Your task to perform on an android device: Add razer blade to the cart on target, then select checkout. Image 0: 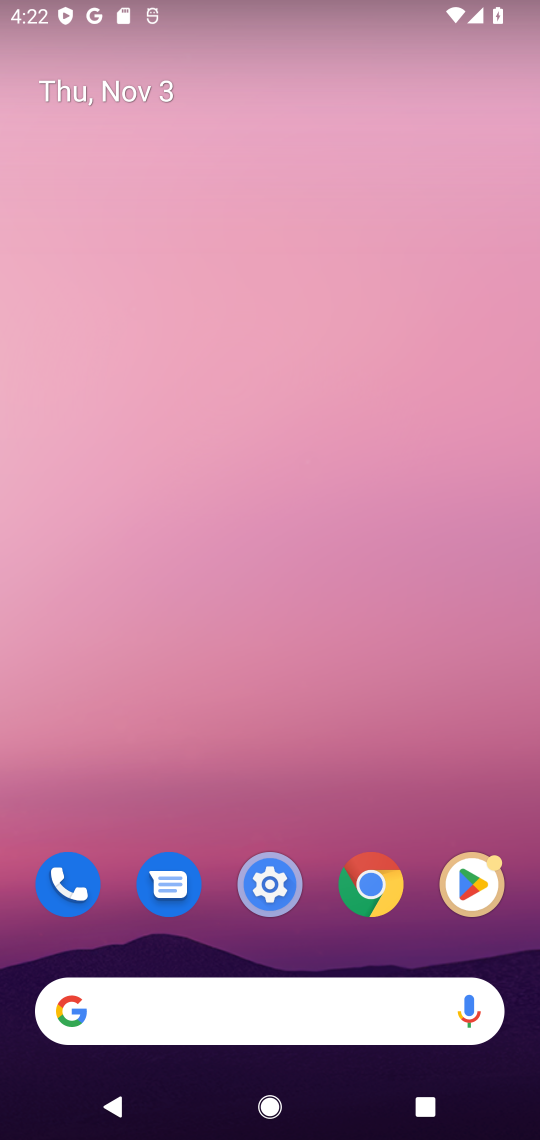
Step 0: press home button
Your task to perform on an android device: Add razer blade to the cart on target, then select checkout. Image 1: 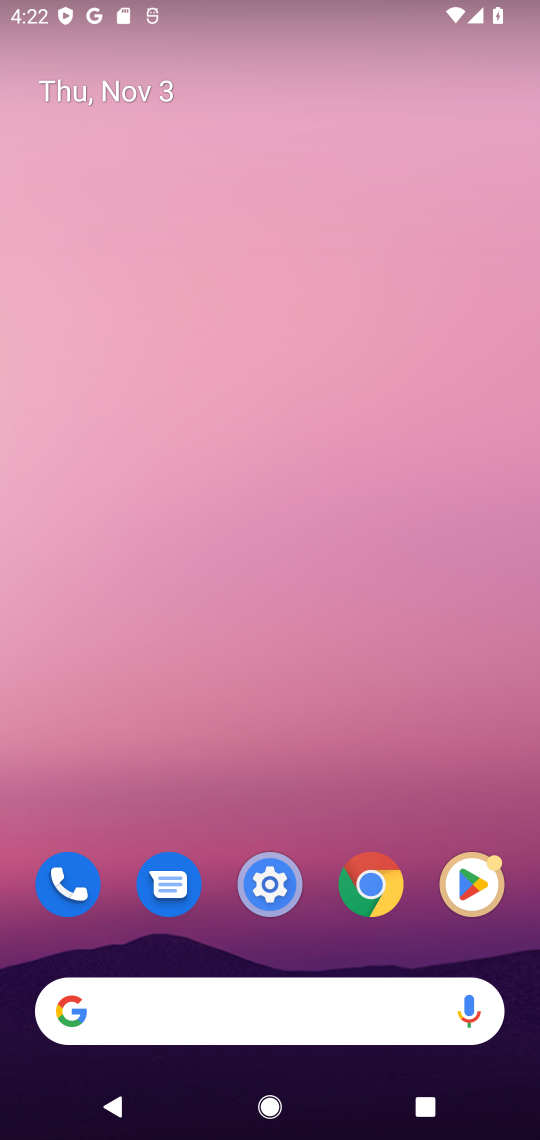
Step 1: click (105, 1007)
Your task to perform on an android device: Add razer blade to the cart on target, then select checkout. Image 2: 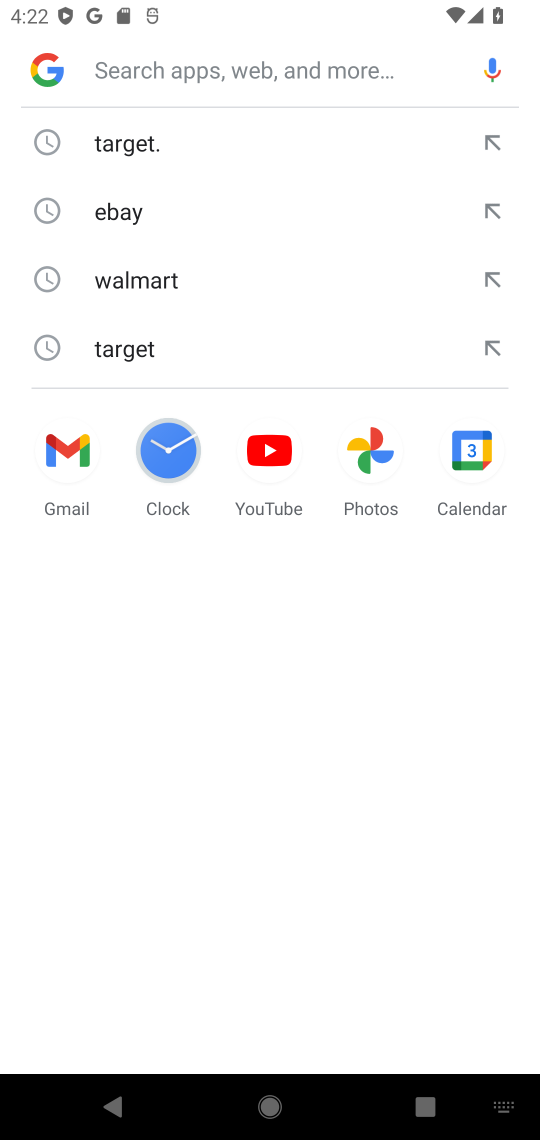
Step 2: type "target"
Your task to perform on an android device: Add razer blade to the cart on target, then select checkout. Image 3: 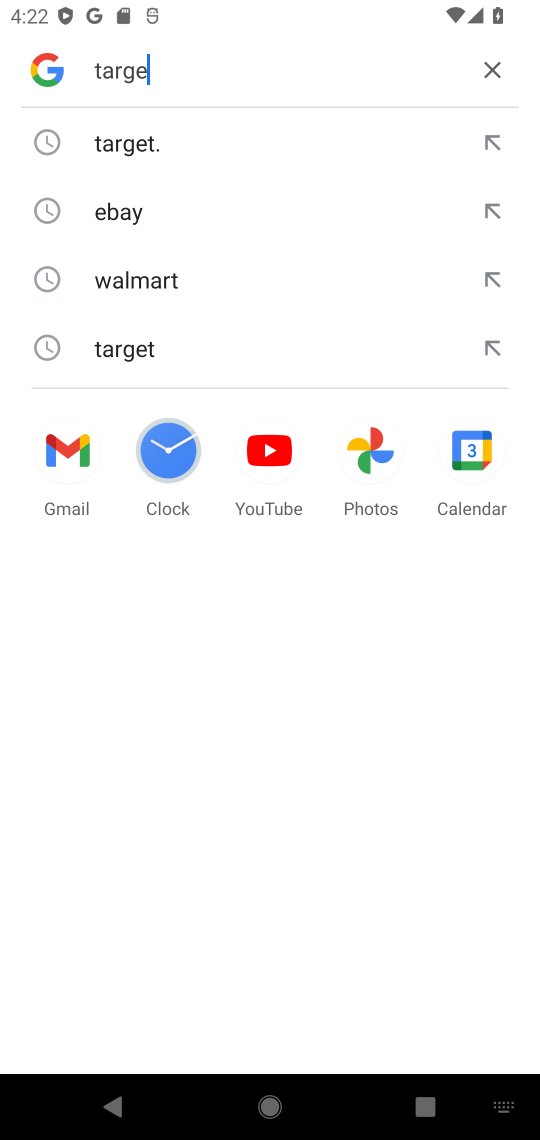
Step 3: press enter
Your task to perform on an android device: Add razer blade to the cart on target, then select checkout. Image 4: 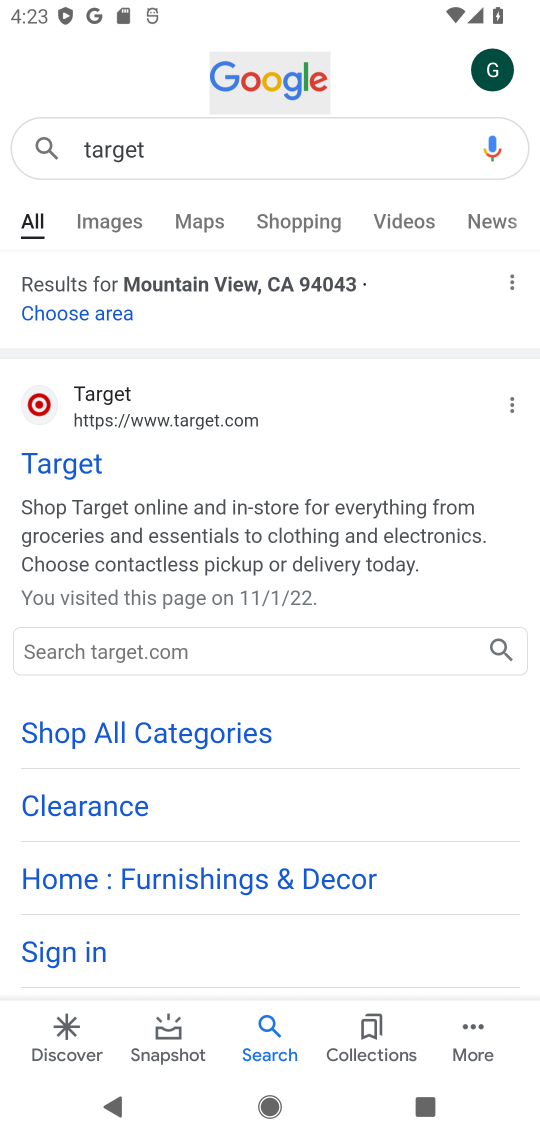
Step 4: click (75, 461)
Your task to perform on an android device: Add razer blade to the cart on target, then select checkout. Image 5: 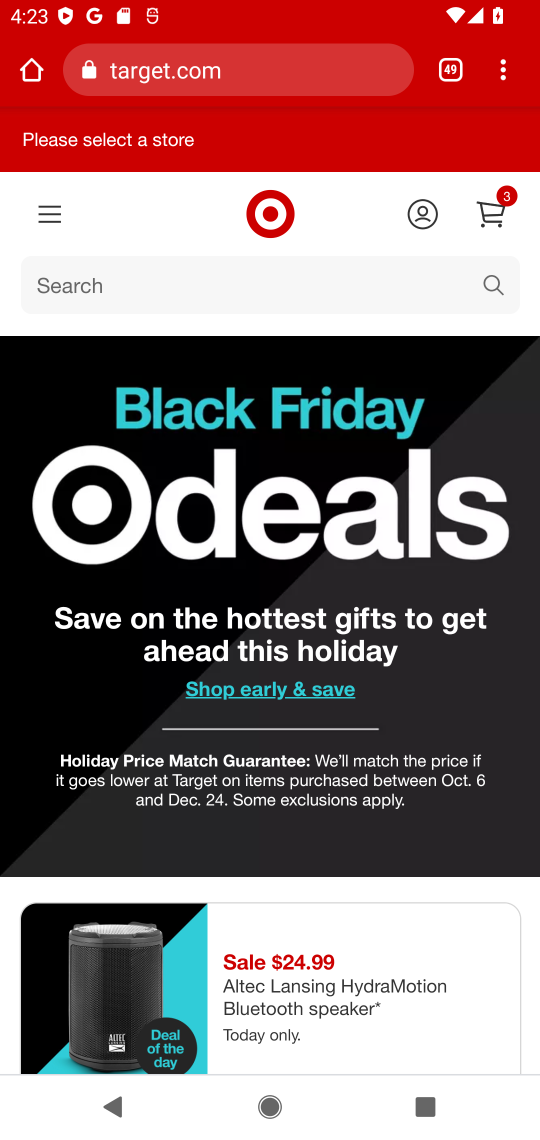
Step 5: click (95, 285)
Your task to perform on an android device: Add razer blade to the cart on target, then select checkout. Image 6: 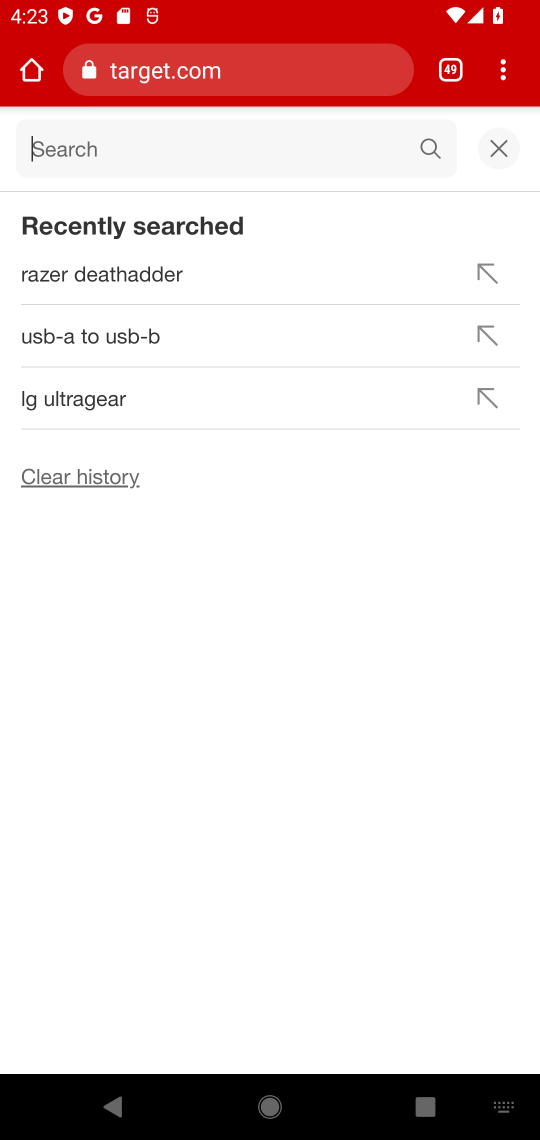
Step 6: type " razer blade"
Your task to perform on an android device: Add razer blade to the cart on target, then select checkout. Image 7: 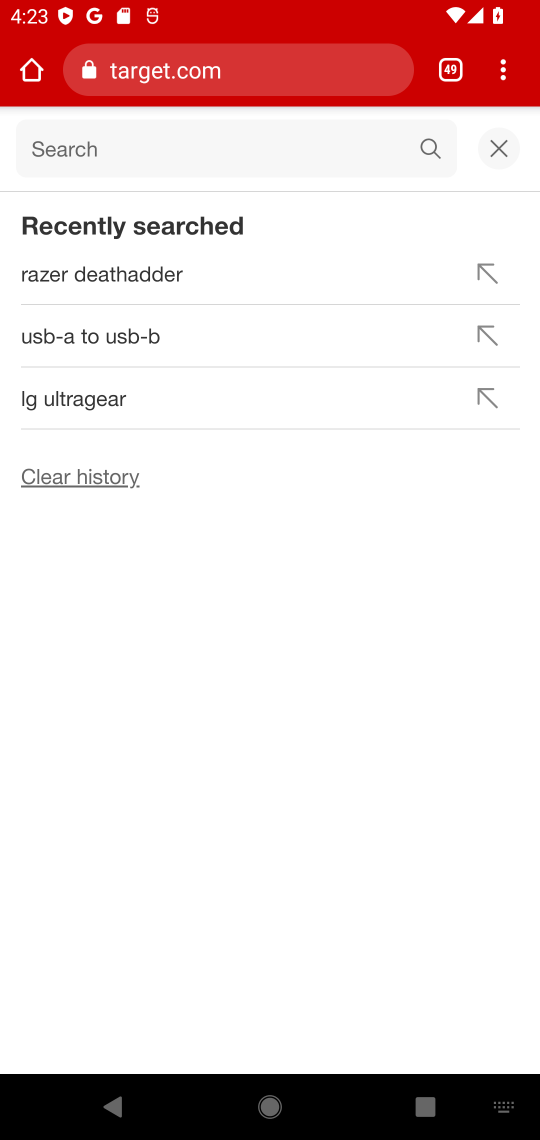
Step 7: press enter
Your task to perform on an android device: Add razer blade to the cart on target, then select checkout. Image 8: 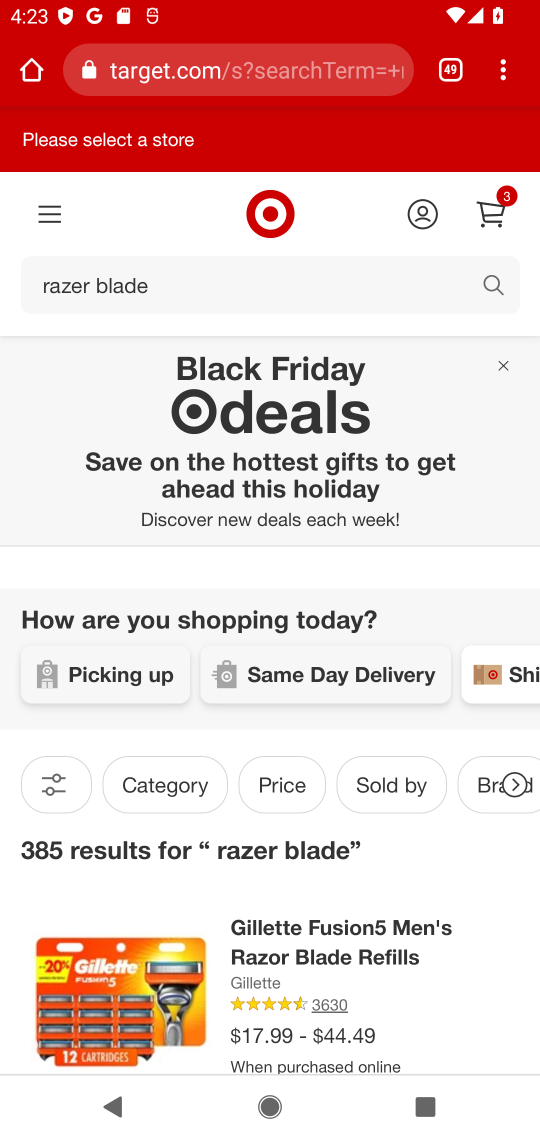
Step 8: drag from (376, 946) to (408, 610)
Your task to perform on an android device: Add razer blade to the cart on target, then select checkout. Image 9: 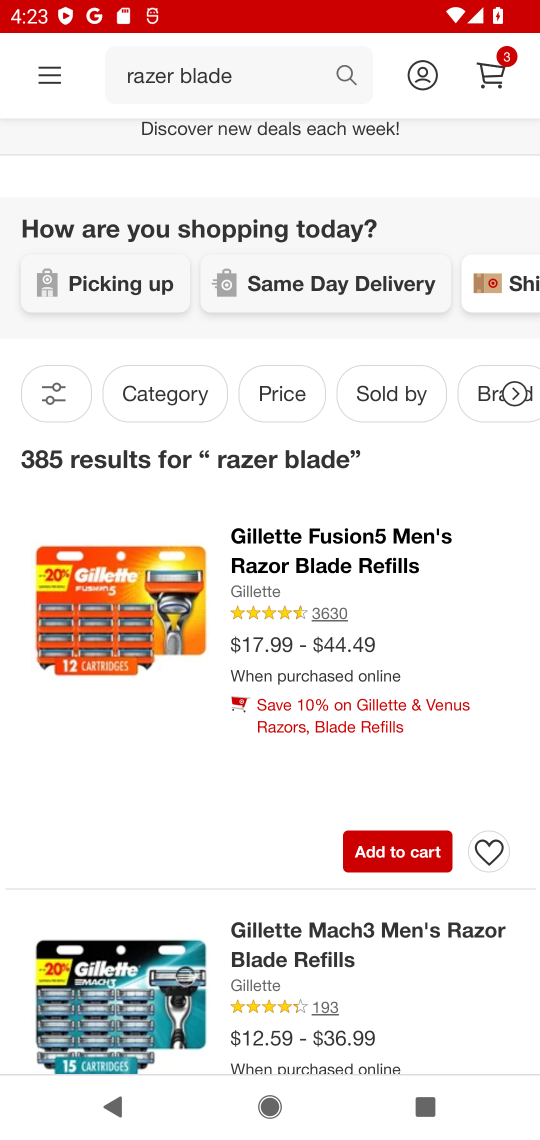
Step 9: click (393, 853)
Your task to perform on an android device: Add razer blade to the cart on target, then select checkout. Image 10: 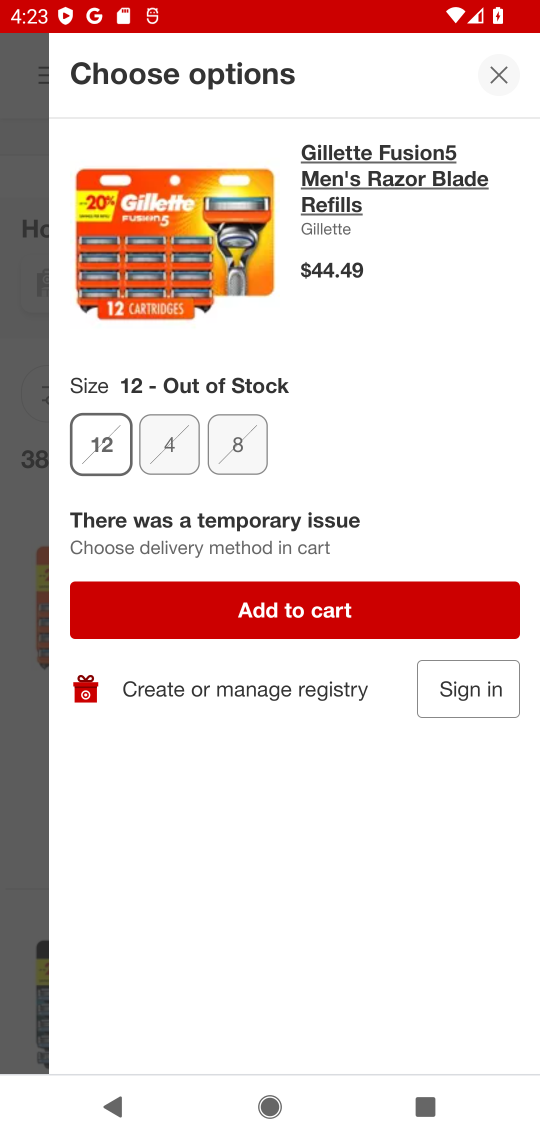
Step 10: click (280, 603)
Your task to perform on an android device: Add razer blade to the cart on target, then select checkout. Image 11: 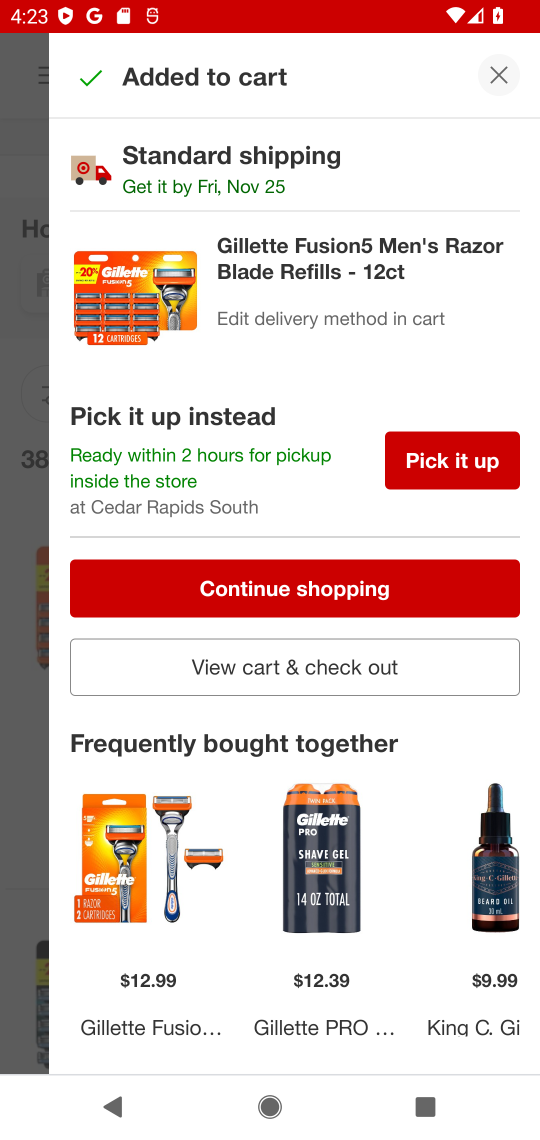
Step 11: click (327, 669)
Your task to perform on an android device: Add razer blade to the cart on target, then select checkout. Image 12: 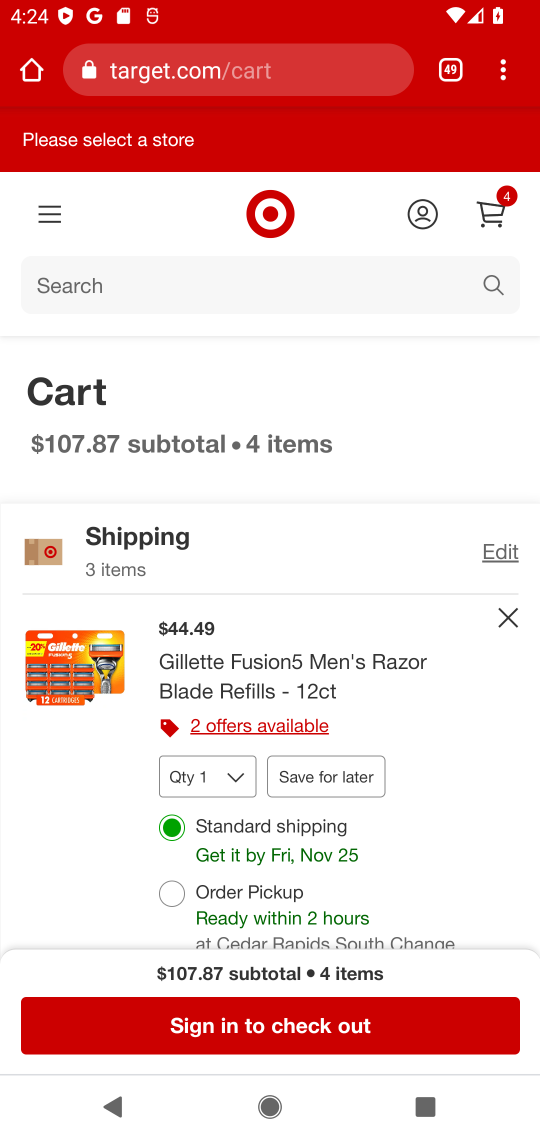
Step 12: click (320, 1032)
Your task to perform on an android device: Add razer blade to the cart on target, then select checkout. Image 13: 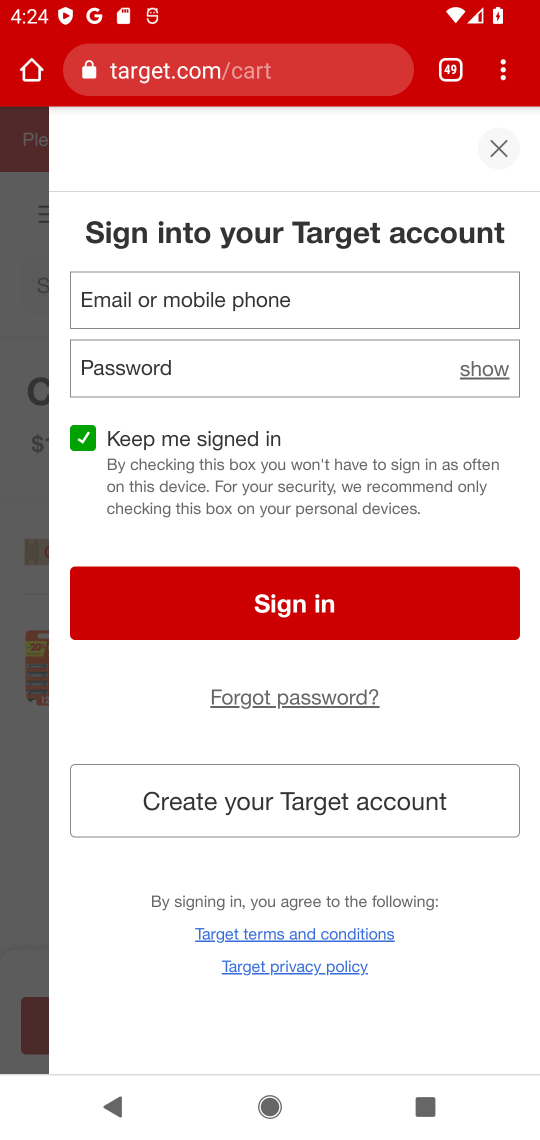
Step 13: task complete